Your task to perform on an android device: Open my contact list Image 0: 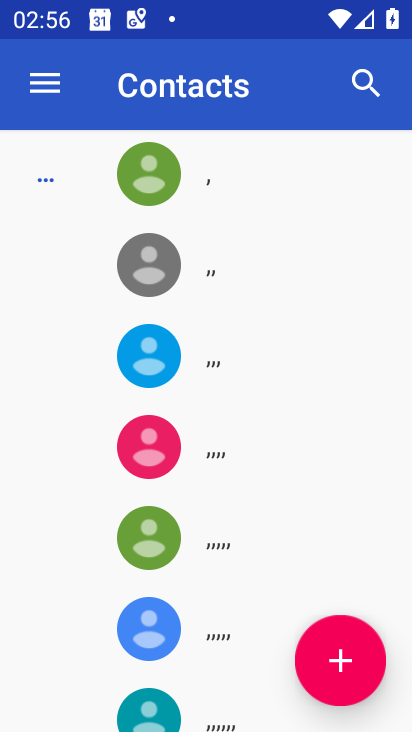
Step 0: task complete